Your task to perform on an android device: Open the stopwatch Image 0: 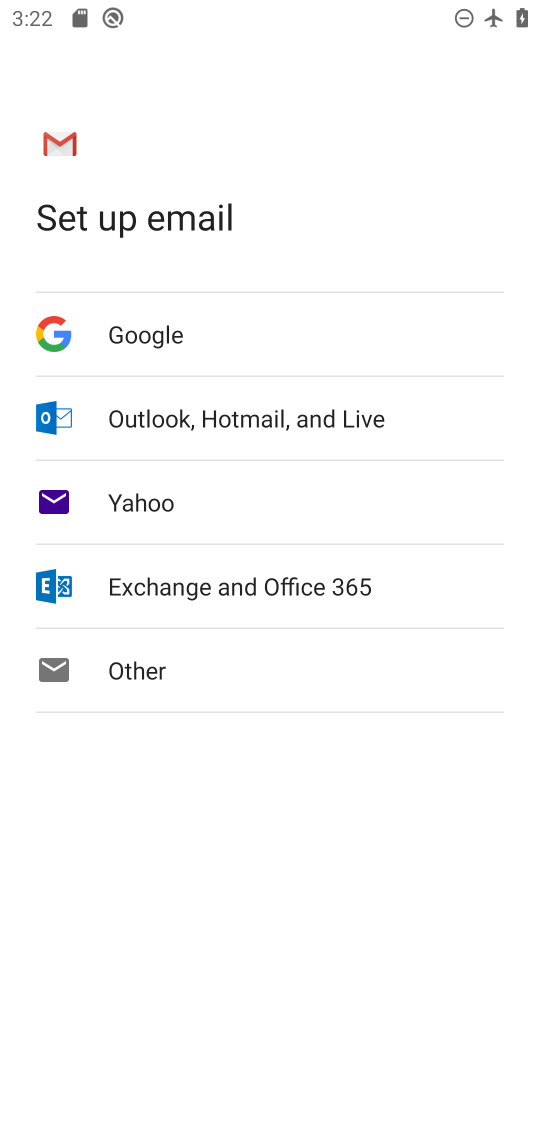
Step 0: press home button
Your task to perform on an android device: Open the stopwatch Image 1: 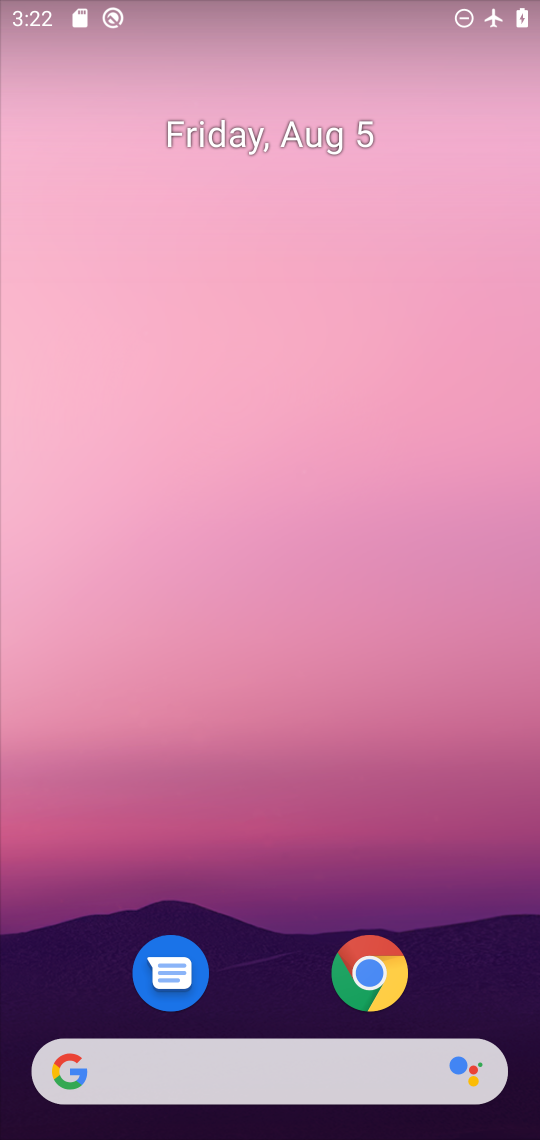
Step 1: drag from (261, 1001) to (254, 23)
Your task to perform on an android device: Open the stopwatch Image 2: 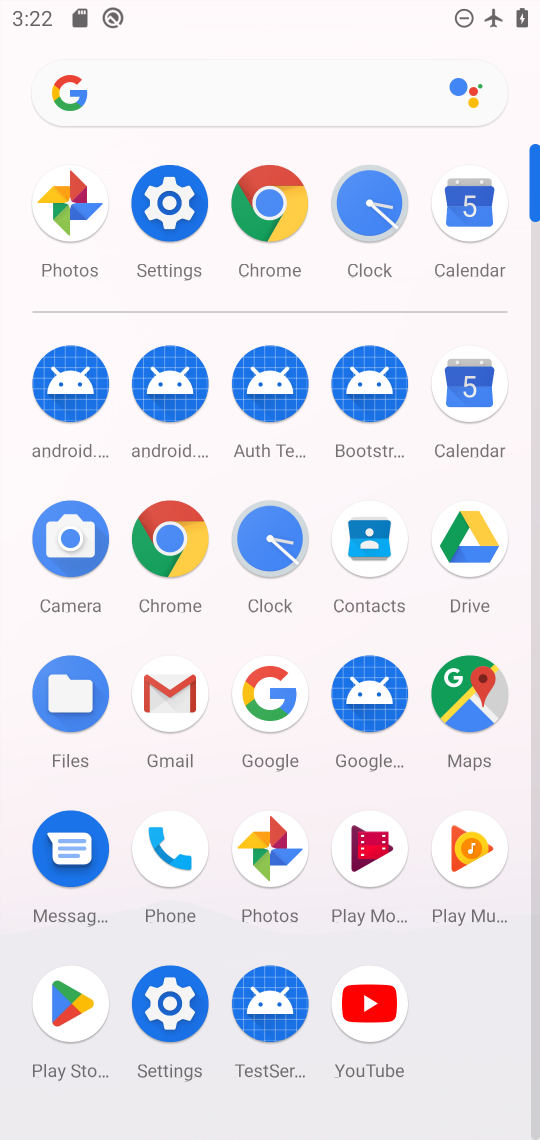
Step 2: click (288, 553)
Your task to perform on an android device: Open the stopwatch Image 3: 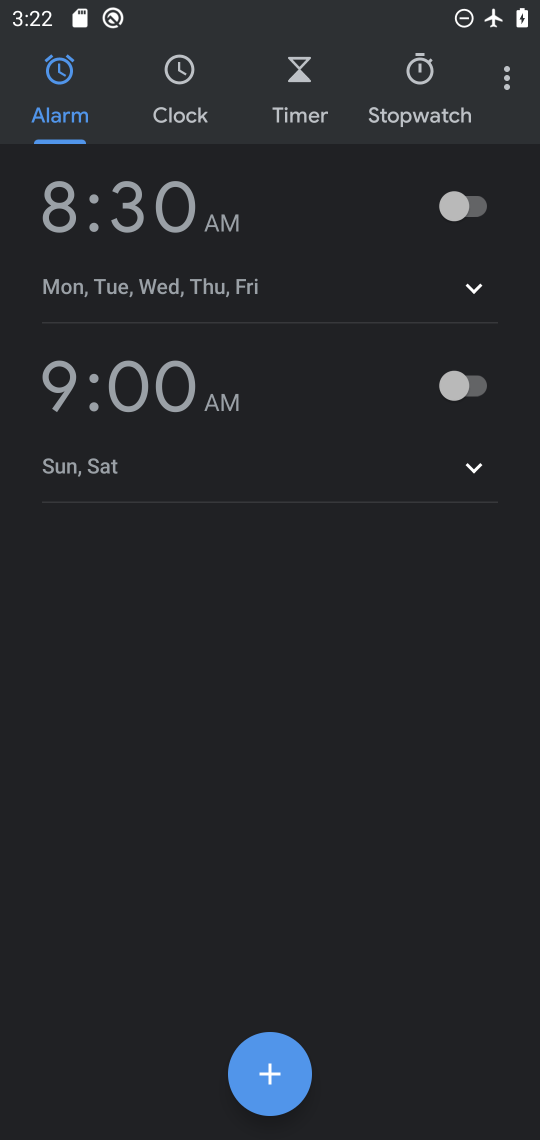
Step 3: click (371, 112)
Your task to perform on an android device: Open the stopwatch Image 4: 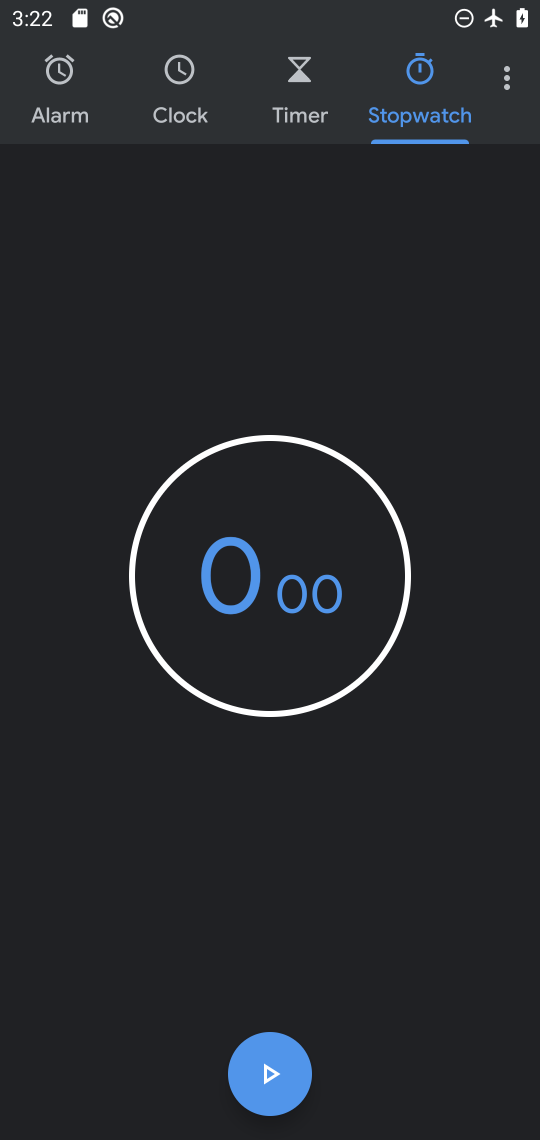
Step 4: task complete